Your task to perform on an android device: Go to notification settings Image 0: 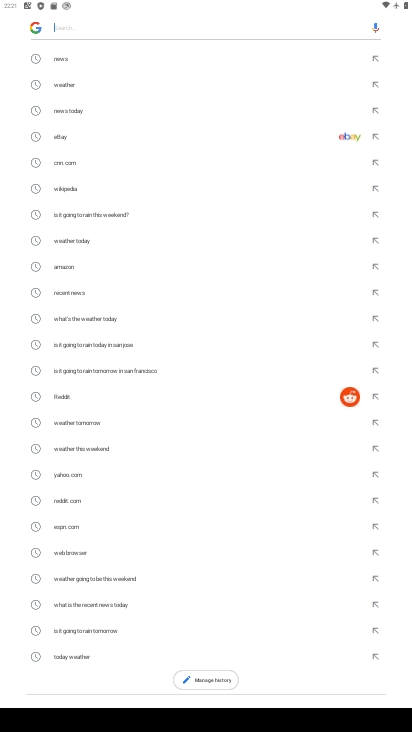
Step 0: press home button
Your task to perform on an android device: Go to notification settings Image 1: 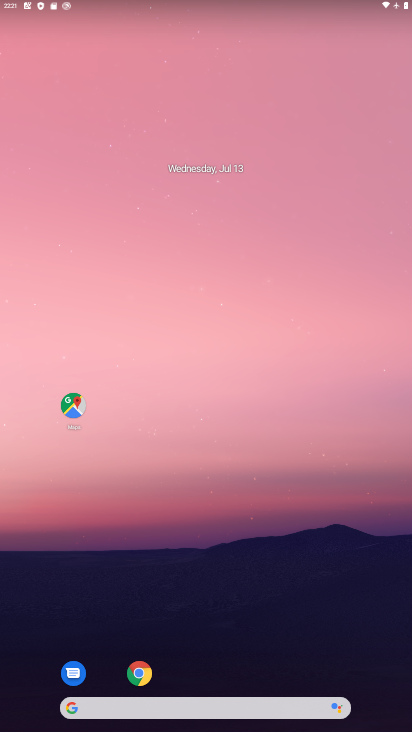
Step 1: drag from (231, 637) to (222, 182)
Your task to perform on an android device: Go to notification settings Image 2: 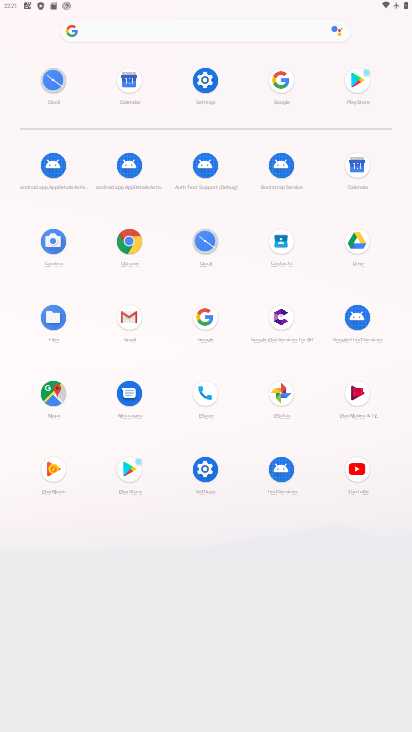
Step 2: click (215, 83)
Your task to perform on an android device: Go to notification settings Image 3: 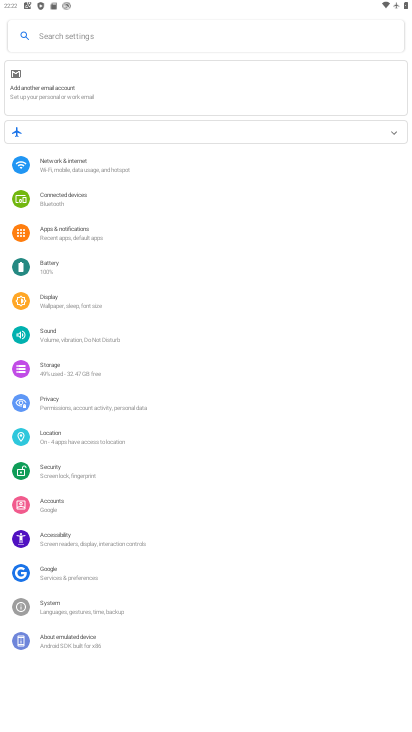
Step 3: click (71, 235)
Your task to perform on an android device: Go to notification settings Image 4: 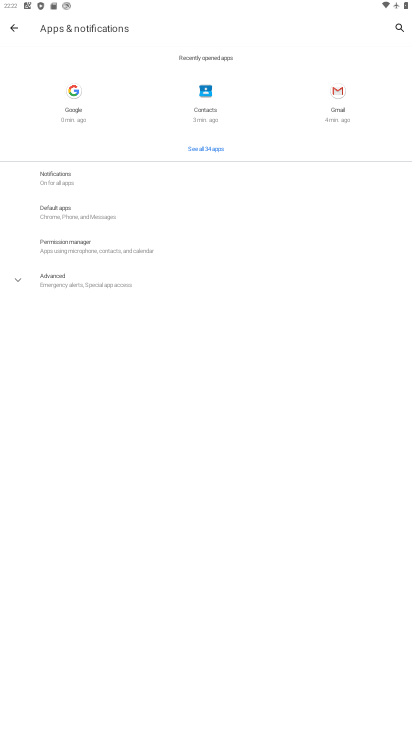
Step 4: click (47, 183)
Your task to perform on an android device: Go to notification settings Image 5: 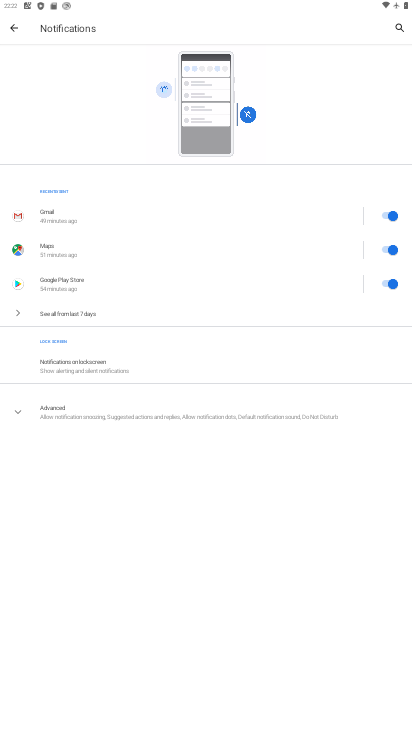
Step 5: task complete